Your task to perform on an android device: Show me popular games on the Play Store Image 0: 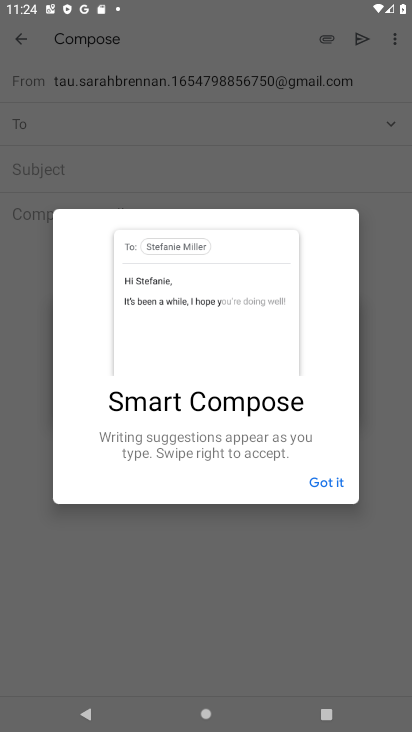
Step 0: press home button
Your task to perform on an android device: Show me popular games on the Play Store Image 1: 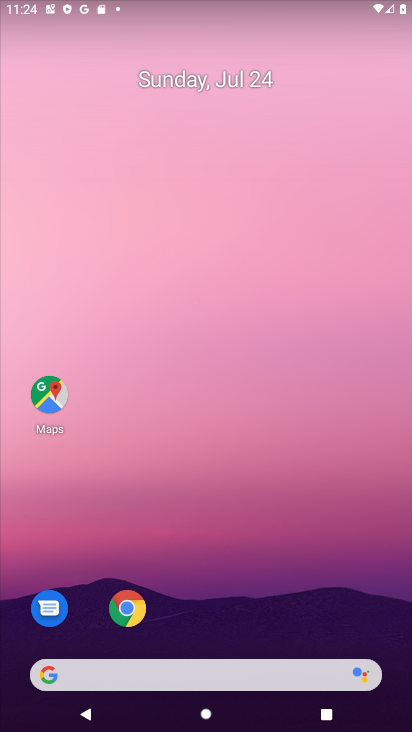
Step 1: drag from (203, 395) to (96, 105)
Your task to perform on an android device: Show me popular games on the Play Store Image 2: 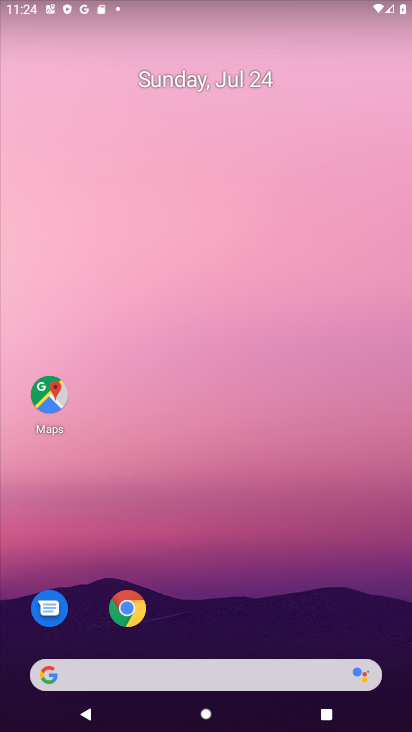
Step 2: drag from (265, 633) to (107, 74)
Your task to perform on an android device: Show me popular games on the Play Store Image 3: 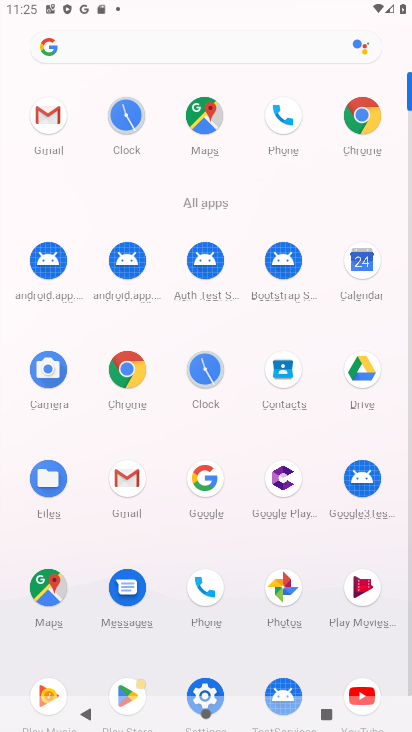
Step 3: click (135, 682)
Your task to perform on an android device: Show me popular games on the Play Store Image 4: 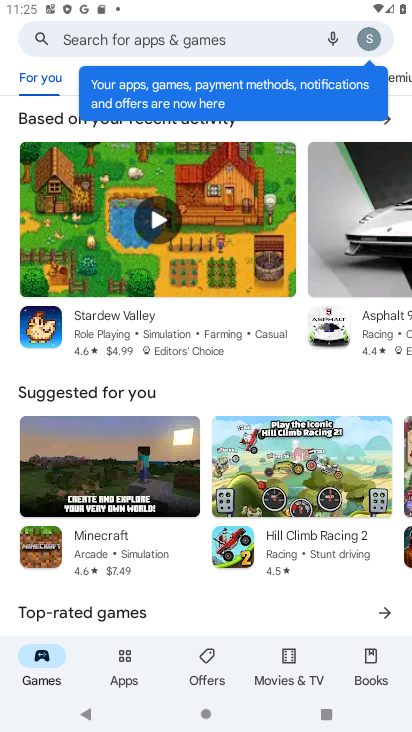
Step 4: click (118, 49)
Your task to perform on an android device: Show me popular games on the Play Store Image 5: 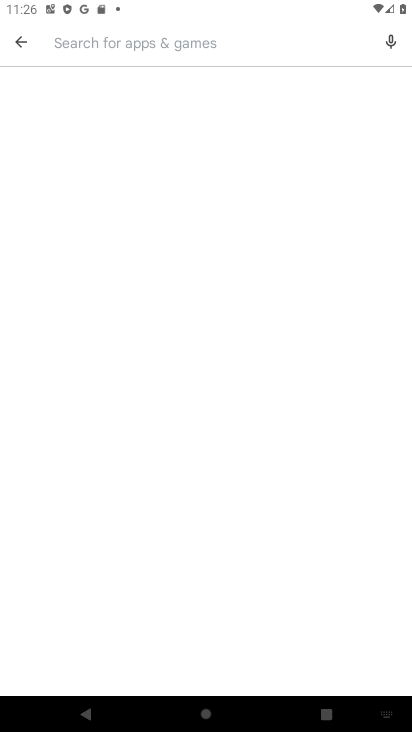
Step 5: type " popular games"
Your task to perform on an android device: Show me popular games on the Play Store Image 6: 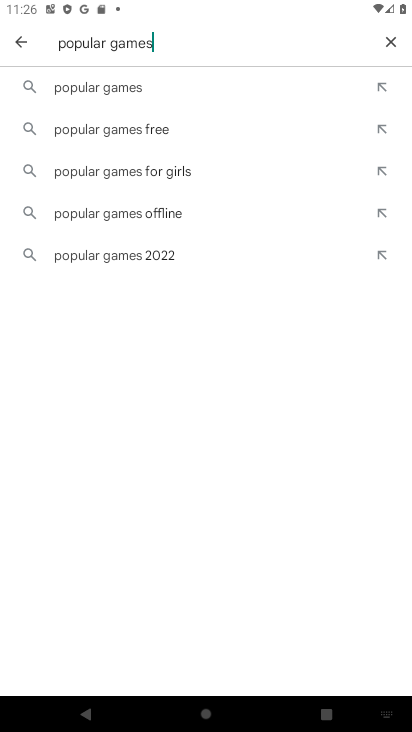
Step 6: click (96, 80)
Your task to perform on an android device: Show me popular games on the Play Store Image 7: 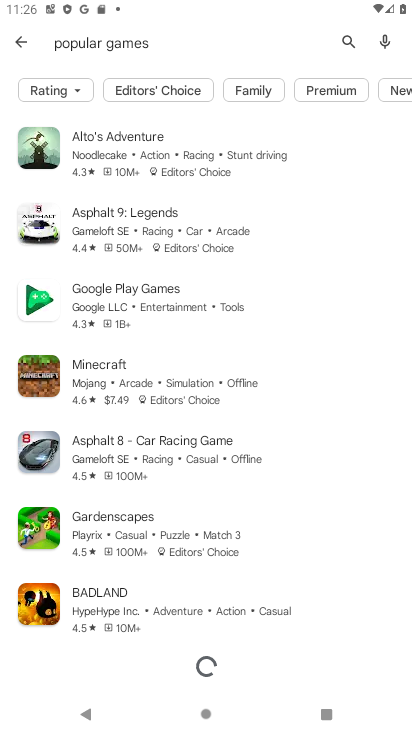
Step 7: task complete